Your task to perform on an android device: turn on the 24-hour format for clock Image 0: 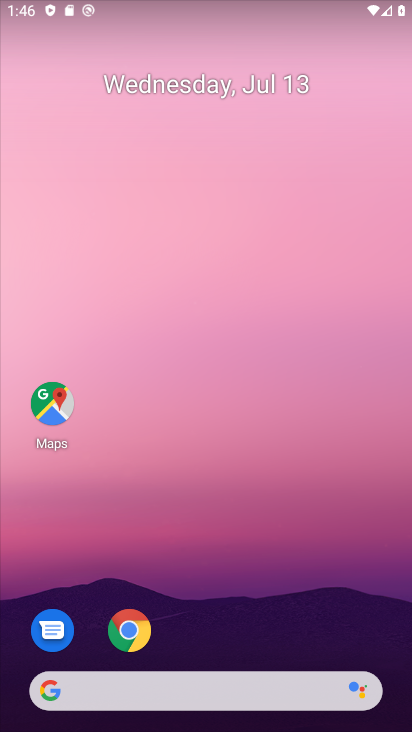
Step 0: drag from (204, 564) to (163, 115)
Your task to perform on an android device: turn on the 24-hour format for clock Image 1: 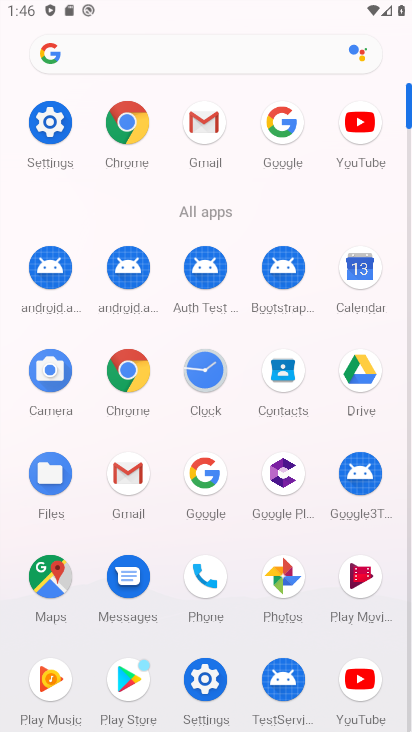
Step 1: click (200, 359)
Your task to perform on an android device: turn on the 24-hour format for clock Image 2: 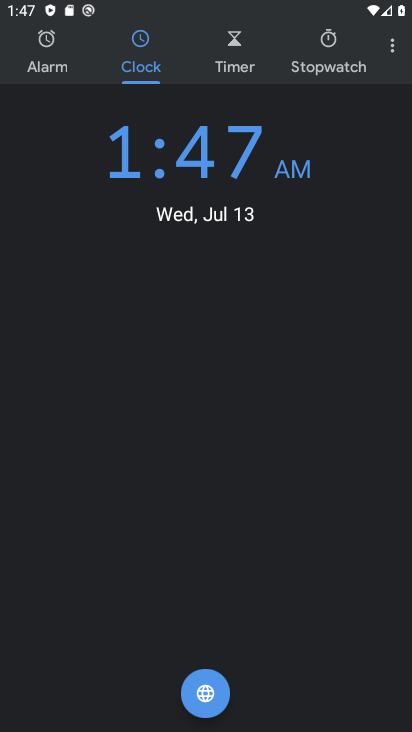
Step 2: click (381, 48)
Your task to perform on an android device: turn on the 24-hour format for clock Image 3: 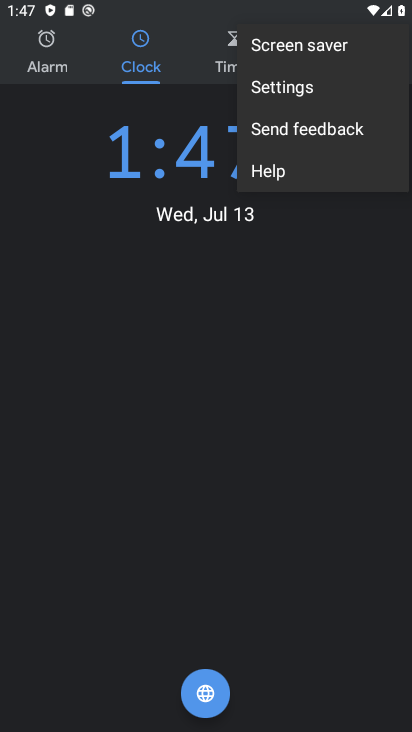
Step 3: click (315, 91)
Your task to perform on an android device: turn on the 24-hour format for clock Image 4: 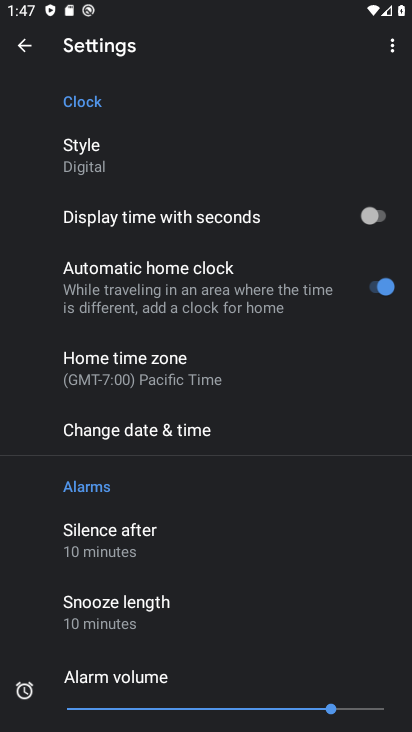
Step 4: click (161, 432)
Your task to perform on an android device: turn on the 24-hour format for clock Image 5: 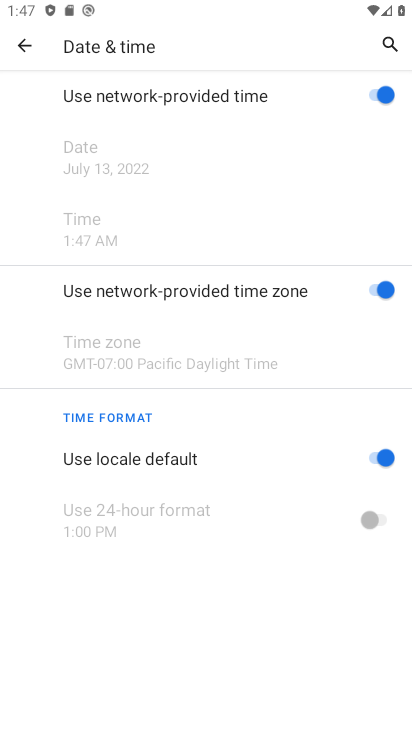
Step 5: click (371, 461)
Your task to perform on an android device: turn on the 24-hour format for clock Image 6: 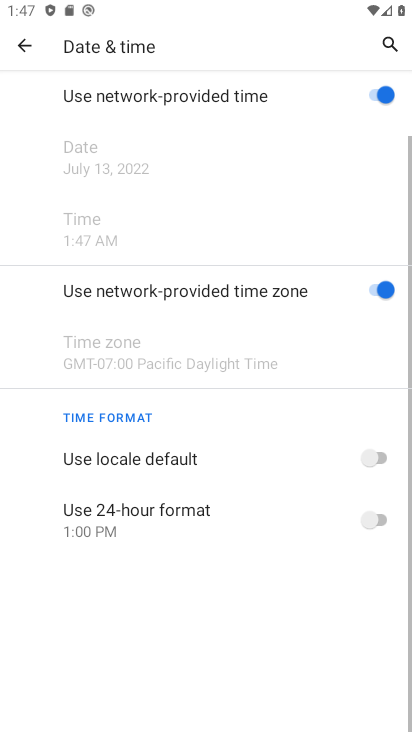
Step 6: click (384, 521)
Your task to perform on an android device: turn on the 24-hour format for clock Image 7: 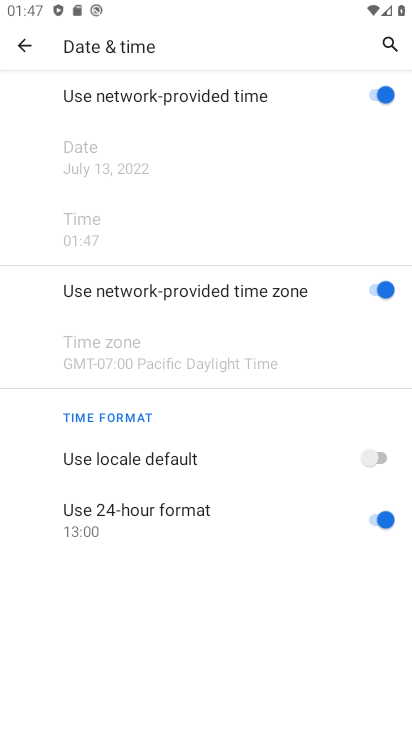
Step 7: task complete